Your task to perform on an android device: toggle airplane mode Image 0: 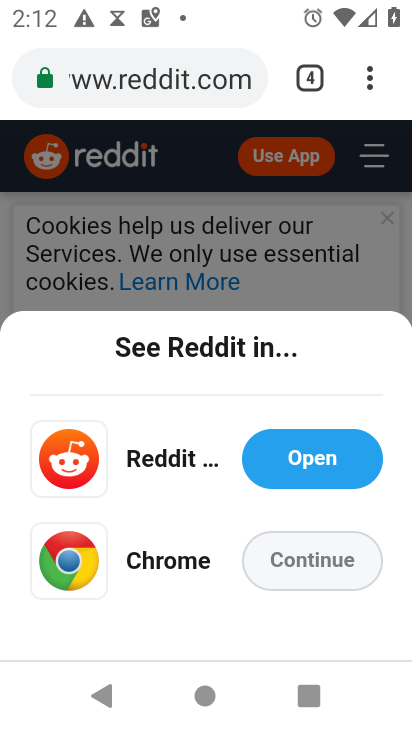
Step 0: press back button
Your task to perform on an android device: toggle airplane mode Image 1: 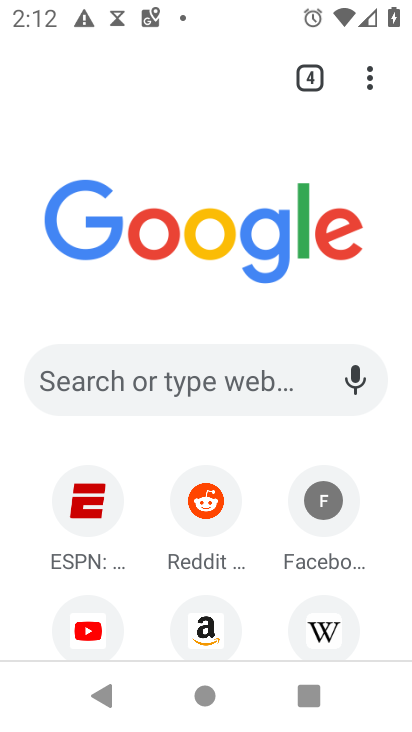
Step 1: drag from (376, 12) to (297, 626)
Your task to perform on an android device: toggle airplane mode Image 2: 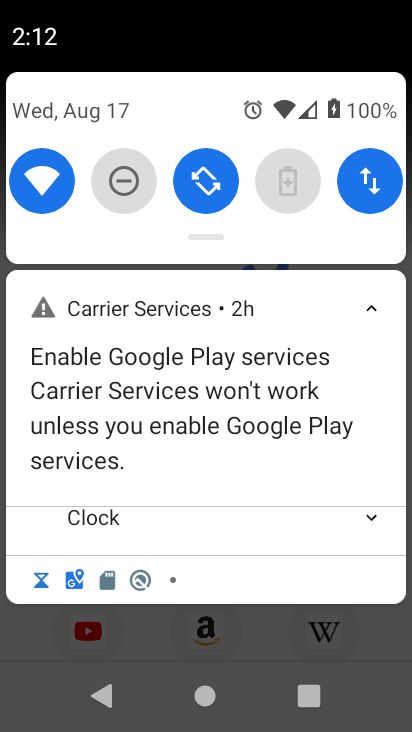
Step 2: drag from (207, 229) to (231, 731)
Your task to perform on an android device: toggle airplane mode Image 3: 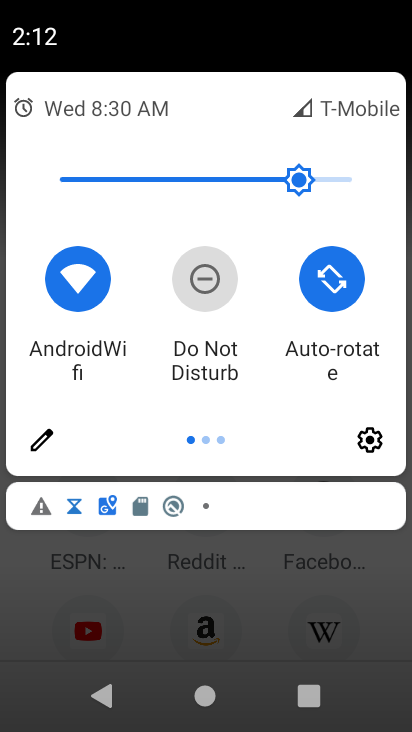
Step 3: drag from (349, 274) to (19, 296)
Your task to perform on an android device: toggle airplane mode Image 4: 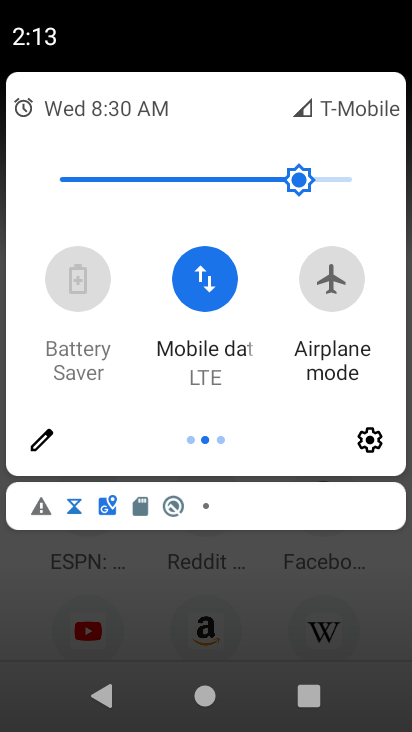
Step 4: click (334, 293)
Your task to perform on an android device: toggle airplane mode Image 5: 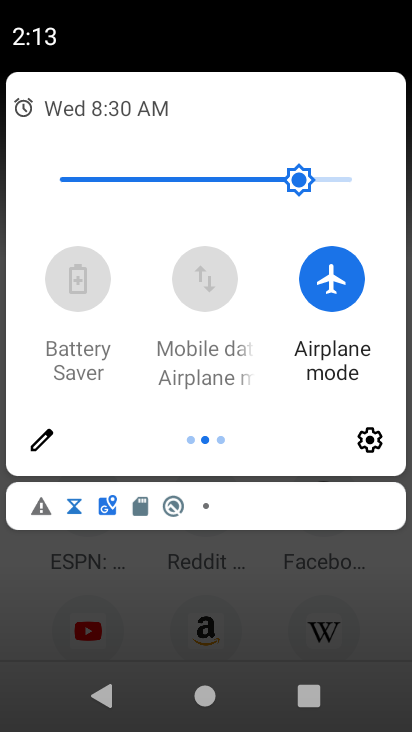
Step 5: task complete